Your task to perform on an android device: Open sound settings Image 0: 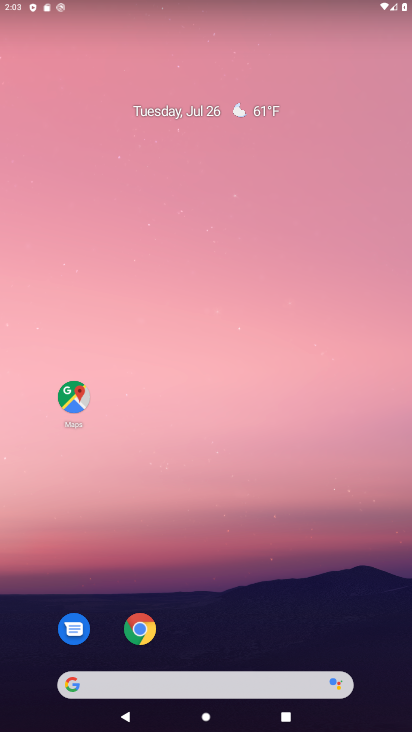
Step 0: drag from (236, 554) to (219, 126)
Your task to perform on an android device: Open sound settings Image 1: 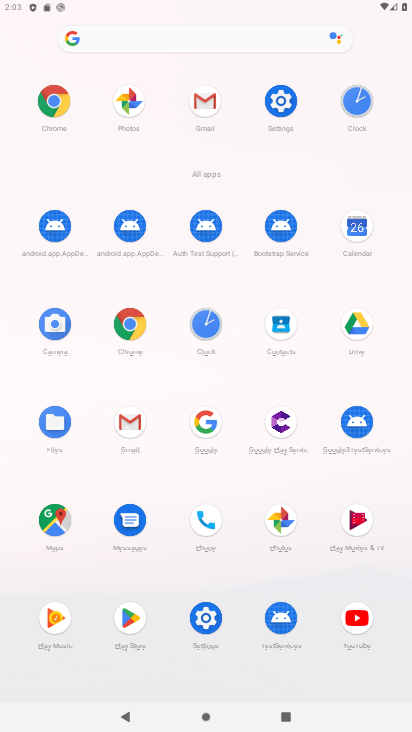
Step 1: click (281, 98)
Your task to perform on an android device: Open sound settings Image 2: 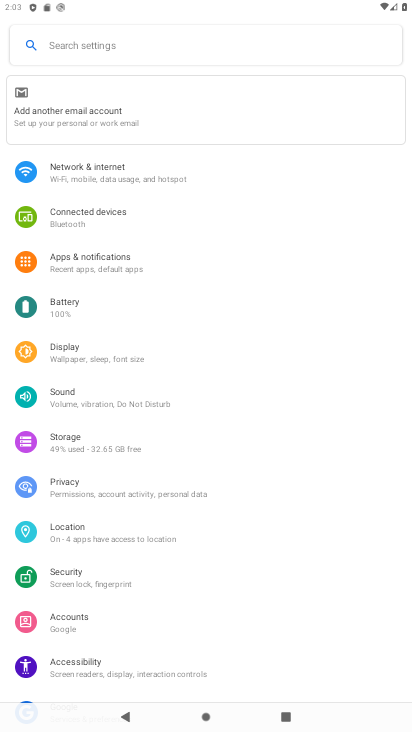
Step 2: click (68, 389)
Your task to perform on an android device: Open sound settings Image 3: 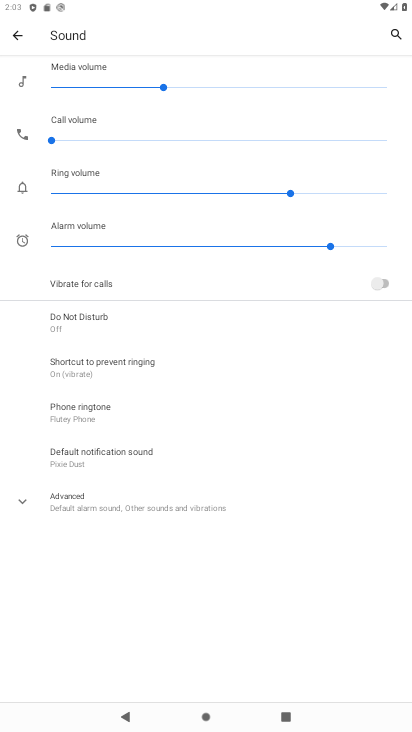
Step 3: task complete